Your task to perform on an android device: Go to sound settings Image 0: 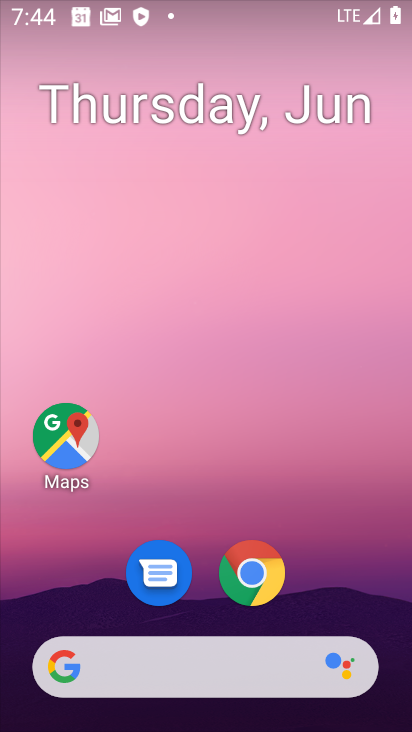
Step 0: drag from (339, 632) to (288, 272)
Your task to perform on an android device: Go to sound settings Image 1: 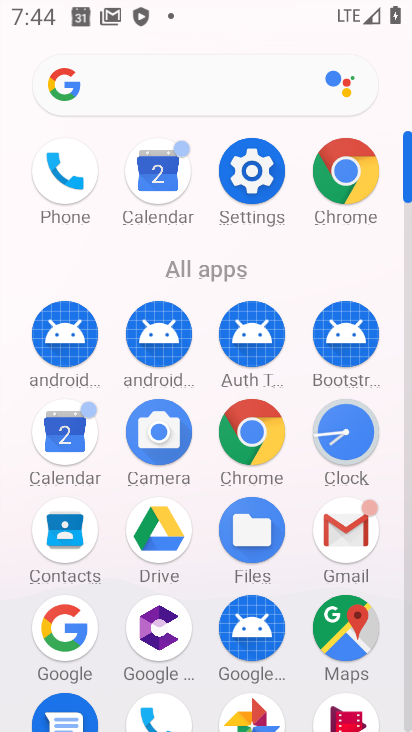
Step 1: click (265, 164)
Your task to perform on an android device: Go to sound settings Image 2: 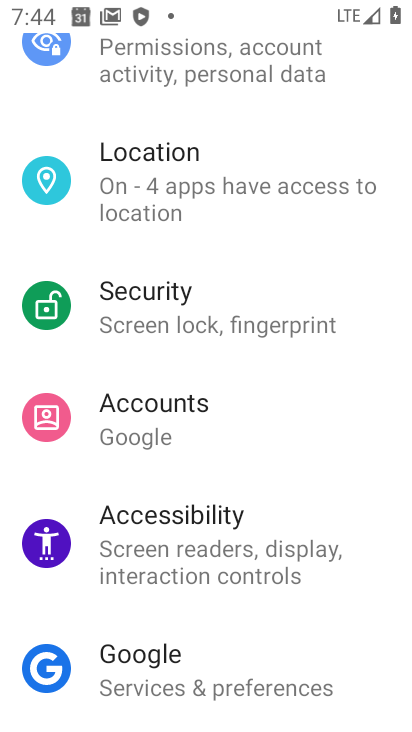
Step 2: drag from (198, 182) to (177, 601)
Your task to perform on an android device: Go to sound settings Image 3: 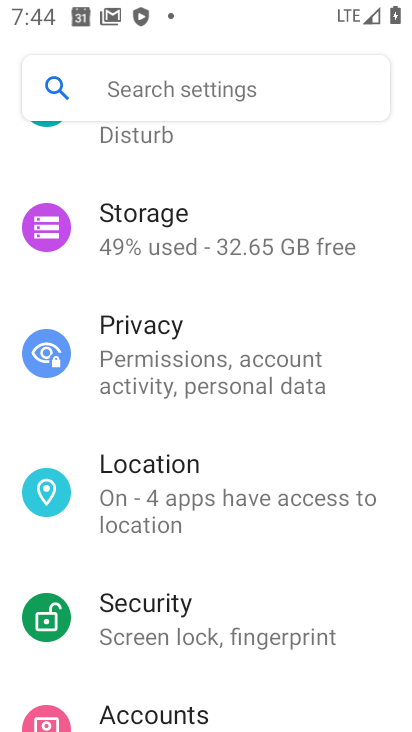
Step 3: drag from (191, 212) to (190, 589)
Your task to perform on an android device: Go to sound settings Image 4: 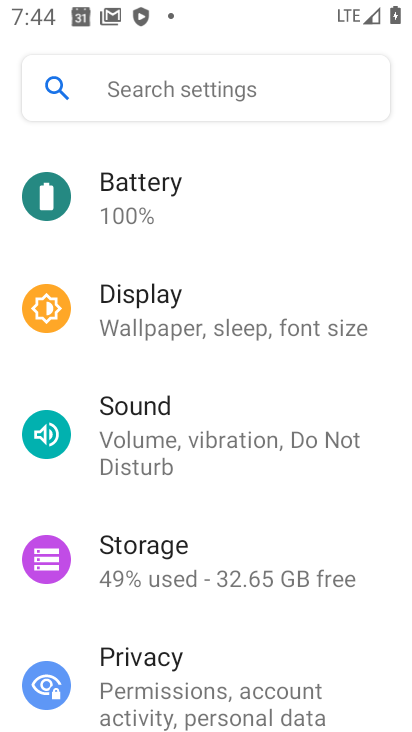
Step 4: drag from (197, 193) to (190, 560)
Your task to perform on an android device: Go to sound settings Image 5: 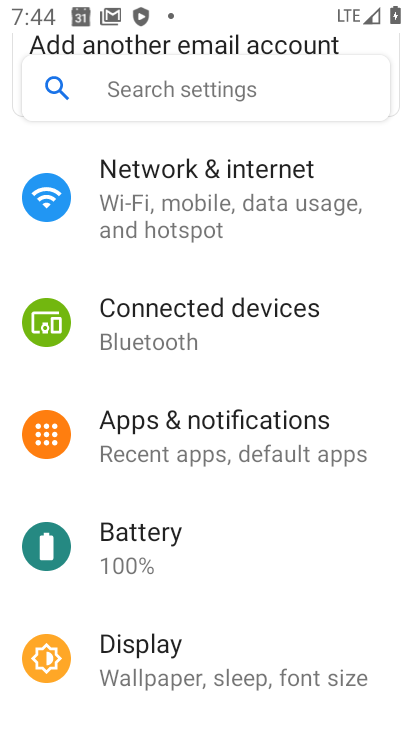
Step 5: drag from (148, 639) to (187, 340)
Your task to perform on an android device: Go to sound settings Image 6: 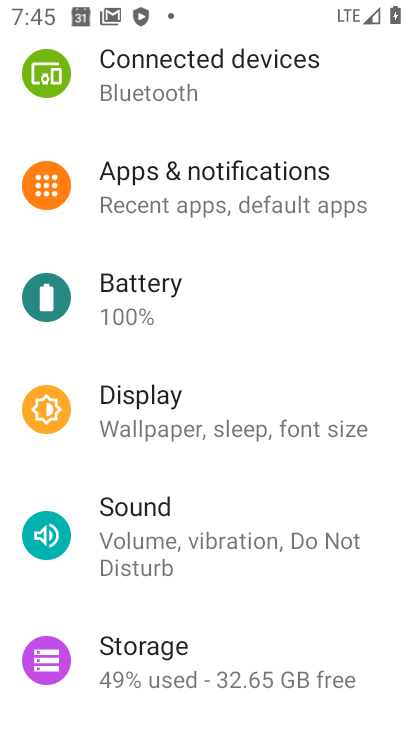
Step 6: click (127, 527)
Your task to perform on an android device: Go to sound settings Image 7: 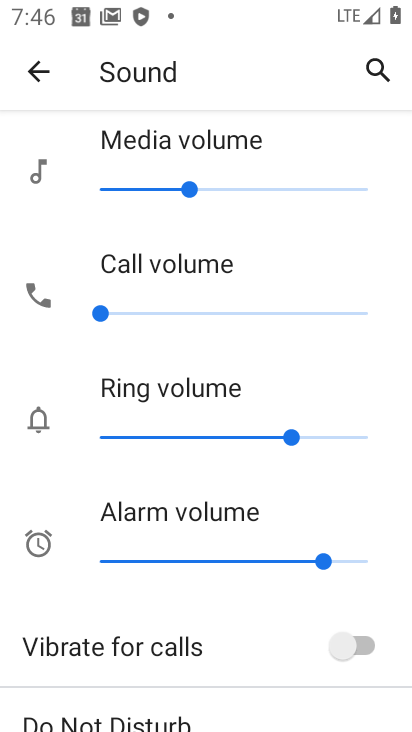
Step 7: task complete